Your task to perform on an android device: Open settings on Google Maps Image 0: 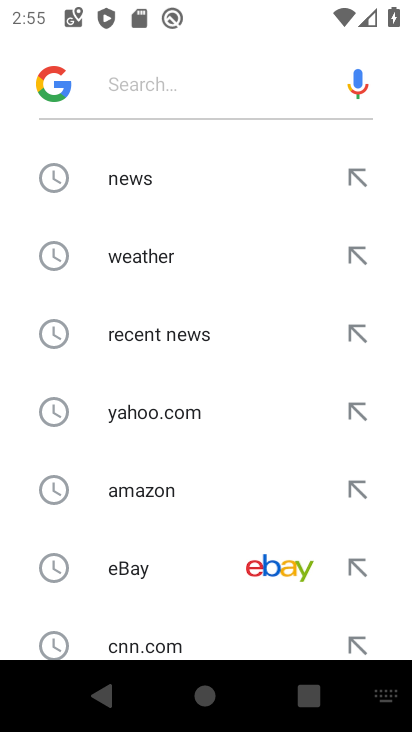
Step 0: press home button
Your task to perform on an android device: Open settings on Google Maps Image 1: 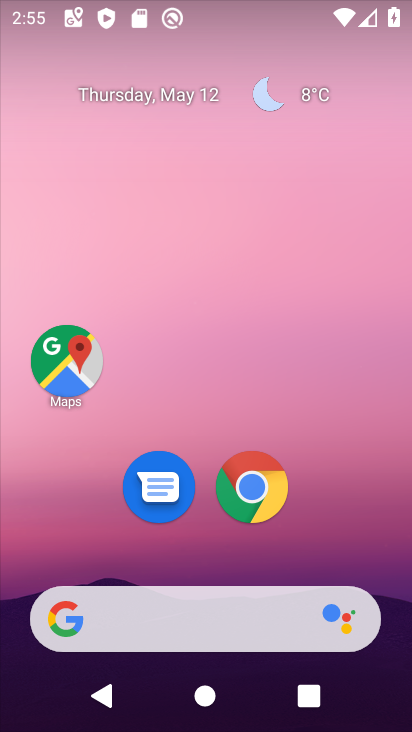
Step 1: click (59, 355)
Your task to perform on an android device: Open settings on Google Maps Image 2: 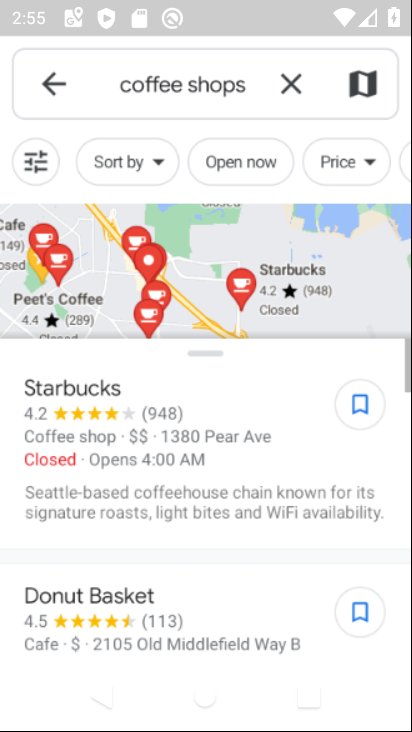
Step 2: click (50, 75)
Your task to perform on an android device: Open settings on Google Maps Image 3: 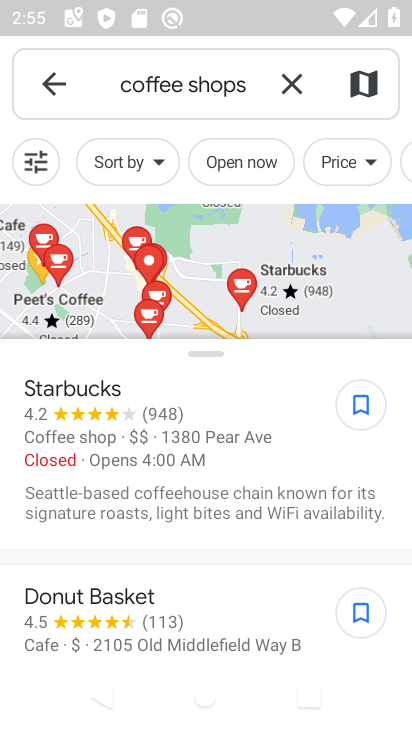
Step 3: click (51, 83)
Your task to perform on an android device: Open settings on Google Maps Image 4: 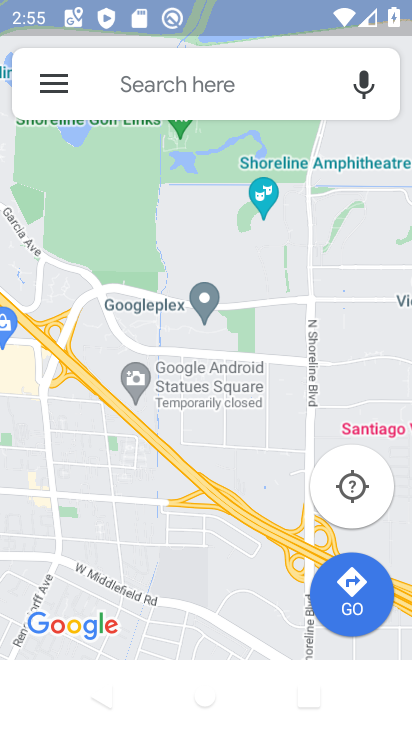
Step 4: click (51, 83)
Your task to perform on an android device: Open settings on Google Maps Image 5: 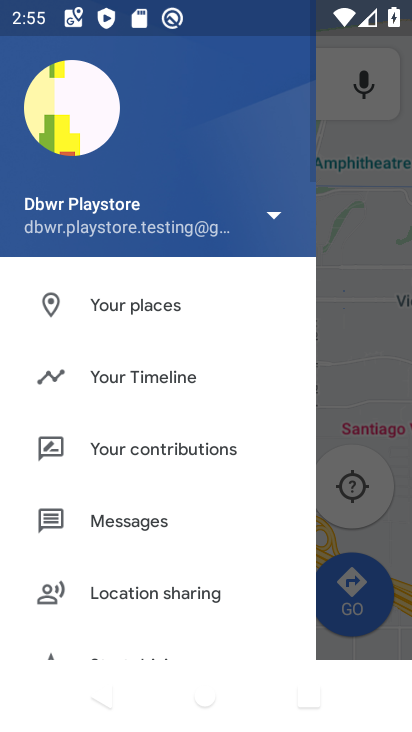
Step 5: drag from (195, 543) to (288, 60)
Your task to perform on an android device: Open settings on Google Maps Image 6: 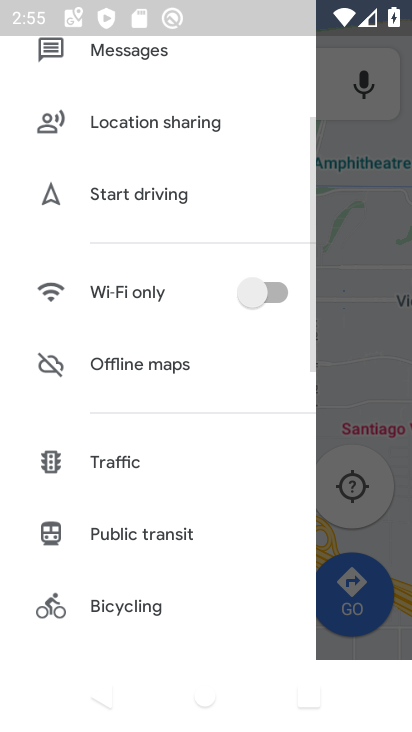
Step 6: drag from (124, 542) to (232, 144)
Your task to perform on an android device: Open settings on Google Maps Image 7: 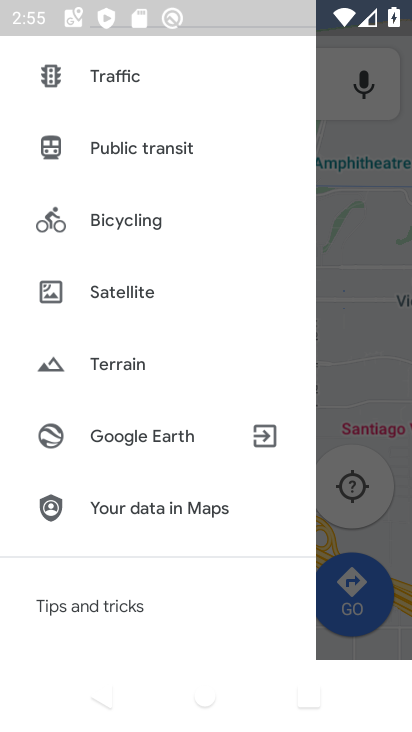
Step 7: drag from (98, 611) to (210, 215)
Your task to perform on an android device: Open settings on Google Maps Image 8: 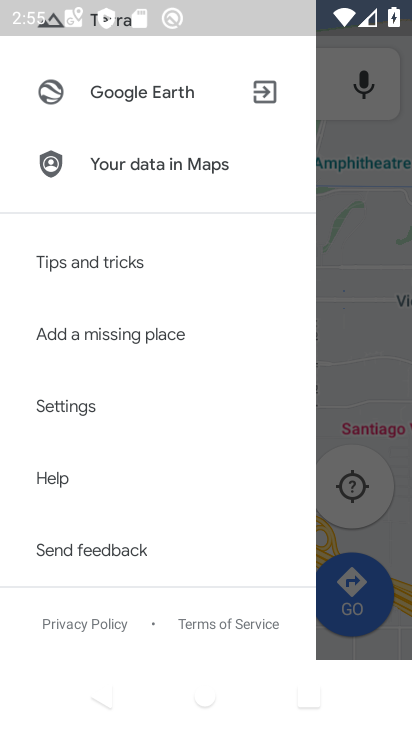
Step 8: click (73, 406)
Your task to perform on an android device: Open settings on Google Maps Image 9: 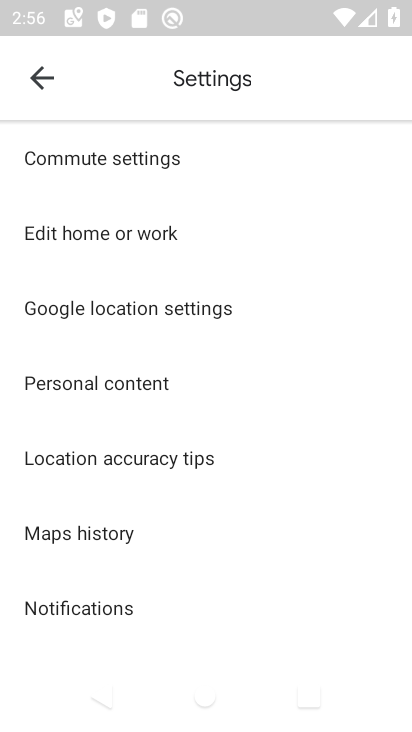
Step 9: task complete